Your task to perform on an android device: Clear all items from cart on walmart. Search for "dell alienware" on walmart, select the first entry, add it to the cart, then select checkout. Image 0: 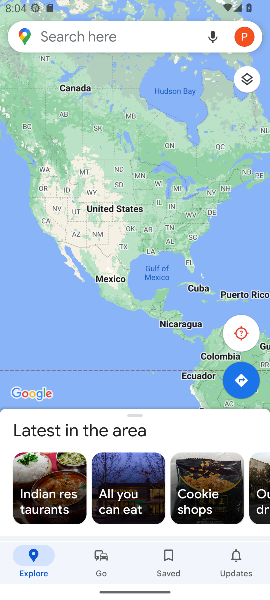
Step 0: press home button
Your task to perform on an android device: Clear all items from cart on walmart. Search for "dell alienware" on walmart, select the first entry, add it to the cart, then select checkout. Image 1: 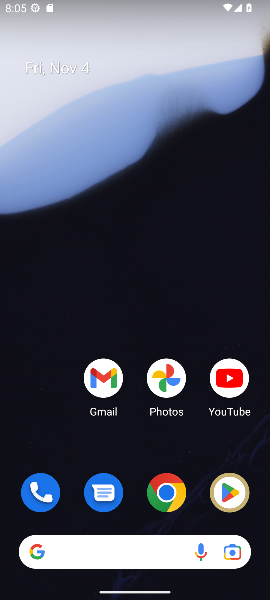
Step 1: drag from (132, 461) to (101, 109)
Your task to perform on an android device: Clear all items from cart on walmart. Search for "dell alienware" on walmart, select the first entry, add it to the cart, then select checkout. Image 2: 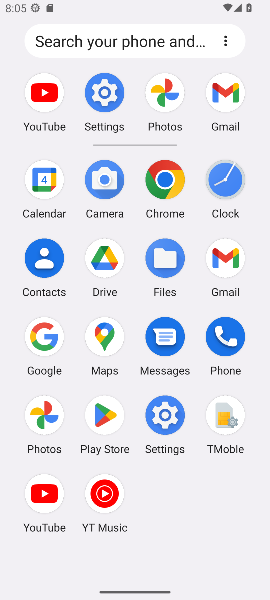
Step 2: click (159, 181)
Your task to perform on an android device: Clear all items from cart on walmart. Search for "dell alienware" on walmart, select the first entry, add it to the cart, then select checkout. Image 3: 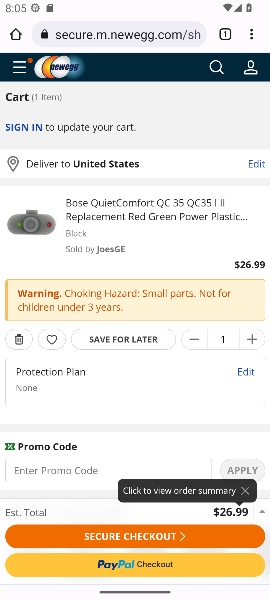
Step 3: click (135, 31)
Your task to perform on an android device: Clear all items from cart on walmart. Search for "dell alienware" on walmart, select the first entry, add it to the cart, then select checkout. Image 4: 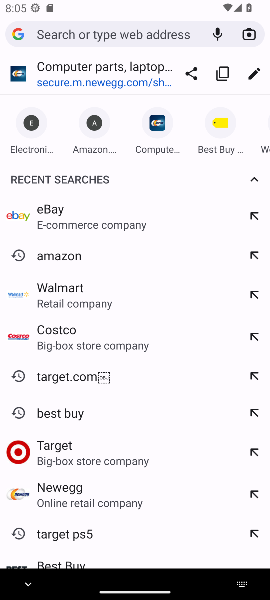
Step 4: type "walmart.com"
Your task to perform on an android device: Clear all items from cart on walmart. Search for "dell alienware" on walmart, select the first entry, add it to the cart, then select checkout. Image 5: 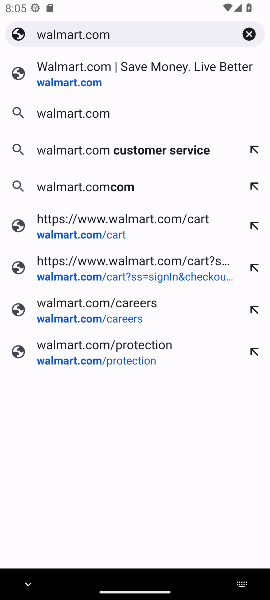
Step 5: press enter
Your task to perform on an android device: Clear all items from cart on walmart. Search for "dell alienware" on walmart, select the first entry, add it to the cart, then select checkout. Image 6: 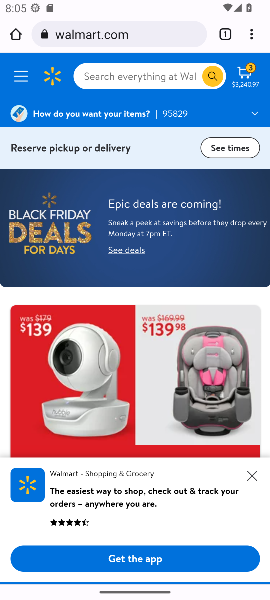
Step 6: click (249, 77)
Your task to perform on an android device: Clear all items from cart on walmart. Search for "dell alienware" on walmart, select the first entry, add it to the cart, then select checkout. Image 7: 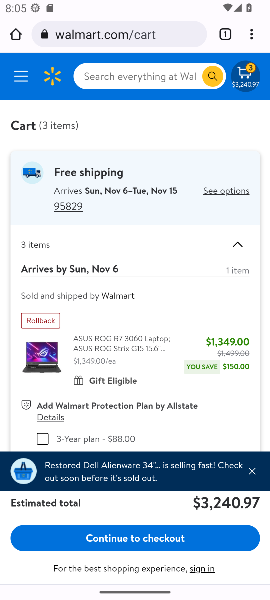
Step 7: drag from (170, 406) to (177, 232)
Your task to perform on an android device: Clear all items from cart on walmart. Search for "dell alienware" on walmart, select the first entry, add it to the cart, then select checkout. Image 8: 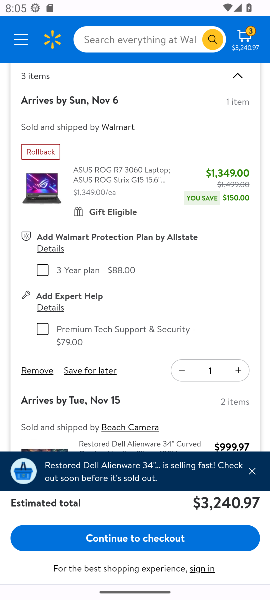
Step 8: click (47, 369)
Your task to perform on an android device: Clear all items from cart on walmart. Search for "dell alienware" on walmart, select the first entry, add it to the cart, then select checkout. Image 9: 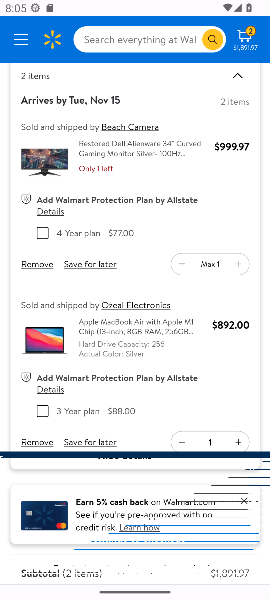
Step 9: click (40, 440)
Your task to perform on an android device: Clear all items from cart on walmart. Search for "dell alienware" on walmart, select the first entry, add it to the cart, then select checkout. Image 10: 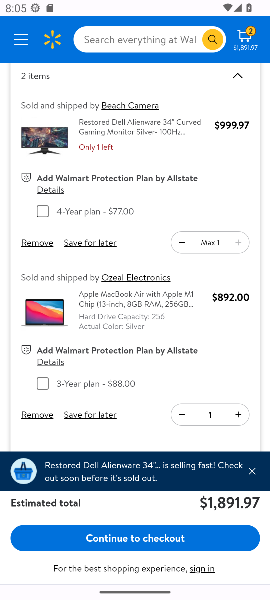
Step 10: click (40, 240)
Your task to perform on an android device: Clear all items from cart on walmart. Search for "dell alienware" on walmart, select the first entry, add it to the cart, then select checkout. Image 11: 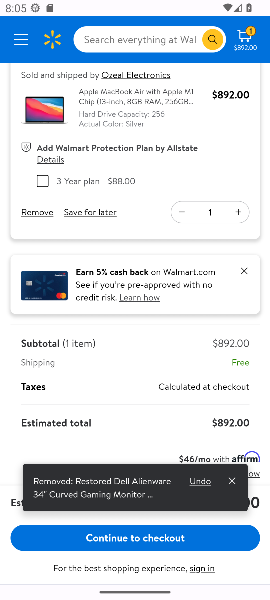
Step 11: click (39, 213)
Your task to perform on an android device: Clear all items from cart on walmart. Search for "dell alienware" on walmart, select the first entry, add it to the cart, then select checkout. Image 12: 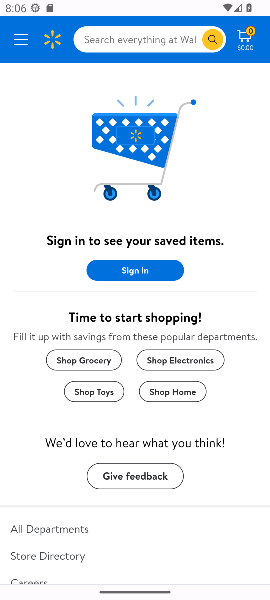
Step 12: click (161, 41)
Your task to perform on an android device: Clear all items from cart on walmart. Search for "dell alienware" on walmart, select the first entry, add it to the cart, then select checkout. Image 13: 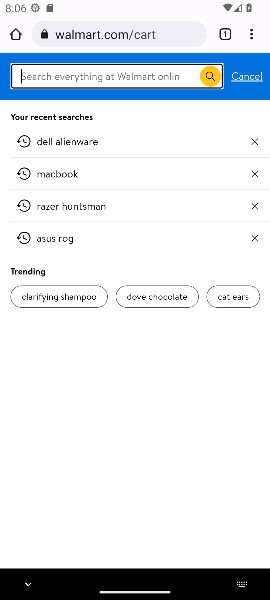
Step 13: type "dell alienware"
Your task to perform on an android device: Clear all items from cart on walmart. Search for "dell alienware" on walmart, select the first entry, add it to the cart, then select checkout. Image 14: 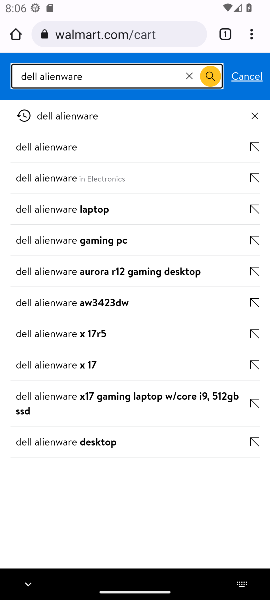
Step 14: press enter
Your task to perform on an android device: Clear all items from cart on walmart. Search for "dell alienware" on walmart, select the first entry, add it to the cart, then select checkout. Image 15: 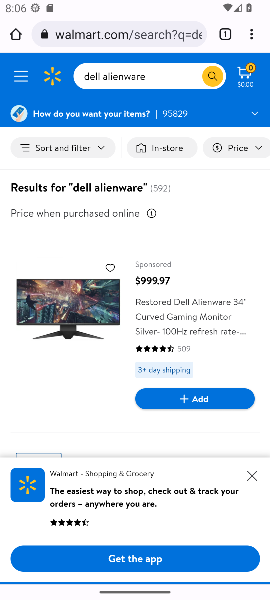
Step 15: drag from (167, 439) to (170, 126)
Your task to perform on an android device: Clear all items from cart on walmart. Search for "dell alienware" on walmart, select the first entry, add it to the cart, then select checkout. Image 16: 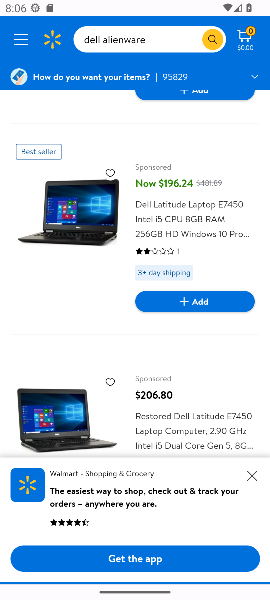
Step 16: drag from (179, 412) to (182, 189)
Your task to perform on an android device: Clear all items from cart on walmart. Search for "dell alienware" on walmart, select the first entry, add it to the cart, then select checkout. Image 17: 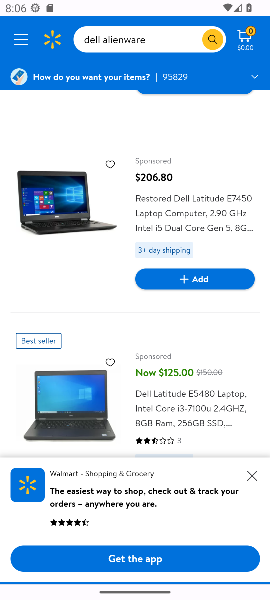
Step 17: drag from (157, 414) to (194, 132)
Your task to perform on an android device: Clear all items from cart on walmart. Search for "dell alienware" on walmart, select the first entry, add it to the cart, then select checkout. Image 18: 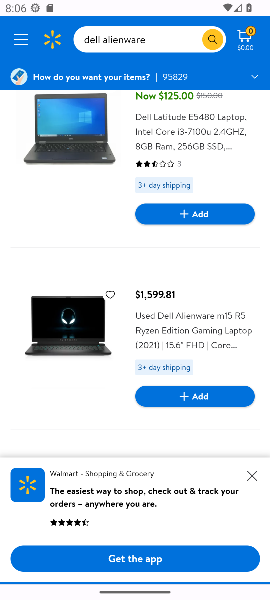
Step 18: click (208, 392)
Your task to perform on an android device: Clear all items from cart on walmart. Search for "dell alienware" on walmart, select the first entry, add it to the cart, then select checkout. Image 19: 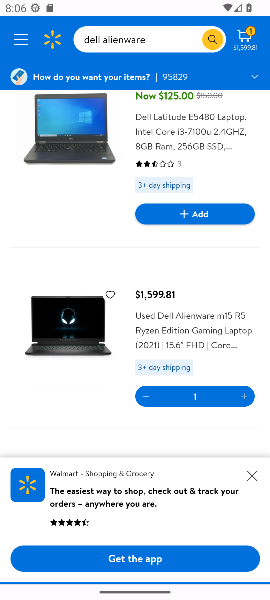
Step 19: click (243, 38)
Your task to perform on an android device: Clear all items from cart on walmart. Search for "dell alienware" on walmart, select the first entry, add it to the cart, then select checkout. Image 20: 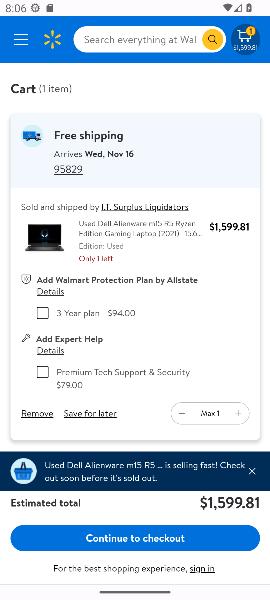
Step 20: click (145, 545)
Your task to perform on an android device: Clear all items from cart on walmart. Search for "dell alienware" on walmart, select the first entry, add it to the cart, then select checkout. Image 21: 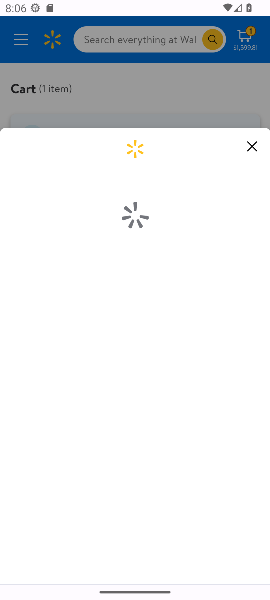
Step 21: task complete